Your task to perform on an android device: turn notification dots off Image 0: 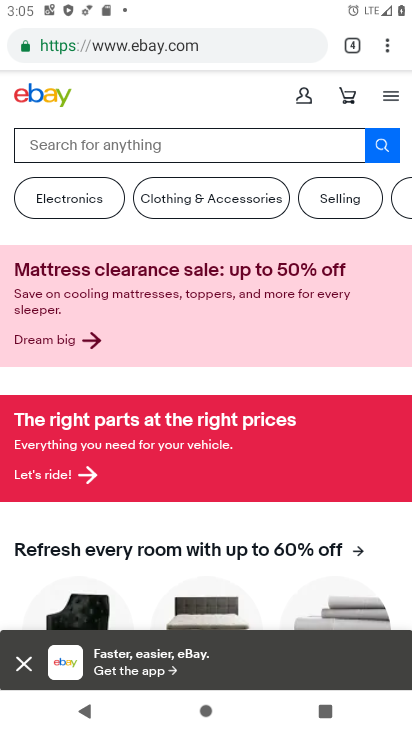
Step 0: press back button
Your task to perform on an android device: turn notification dots off Image 1: 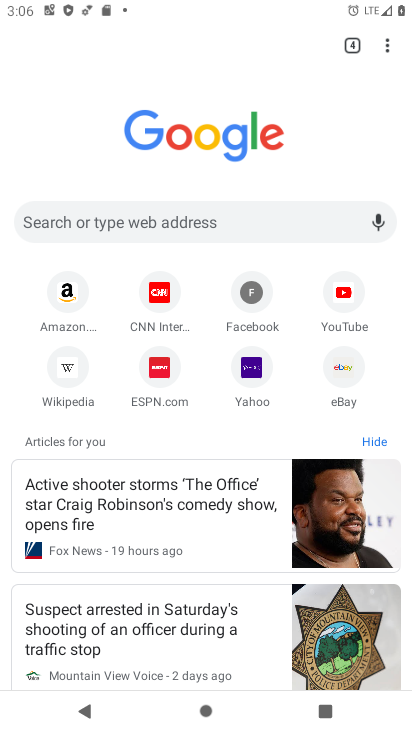
Step 1: press back button
Your task to perform on an android device: turn notification dots off Image 2: 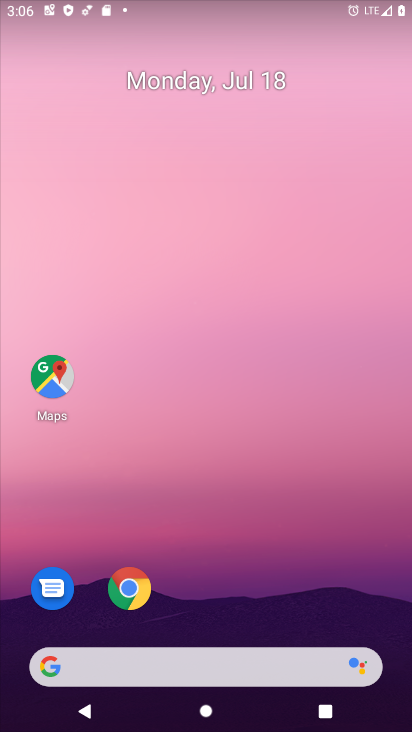
Step 2: drag from (260, 583) to (322, 7)
Your task to perform on an android device: turn notification dots off Image 3: 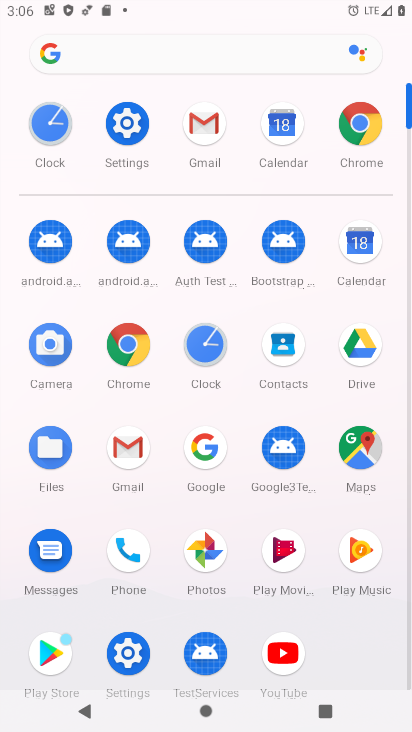
Step 3: click (131, 140)
Your task to perform on an android device: turn notification dots off Image 4: 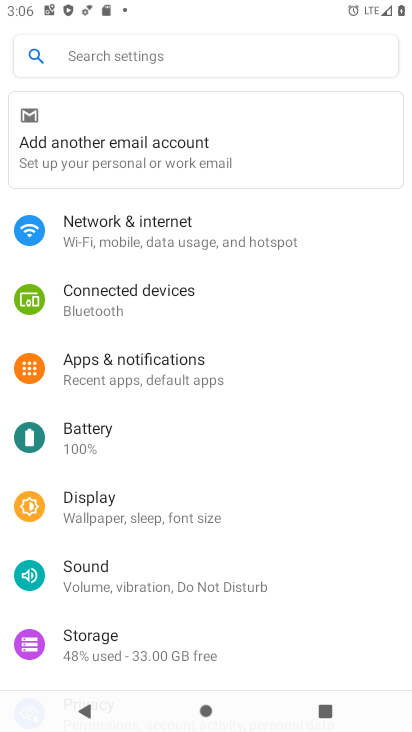
Step 4: click (132, 372)
Your task to perform on an android device: turn notification dots off Image 5: 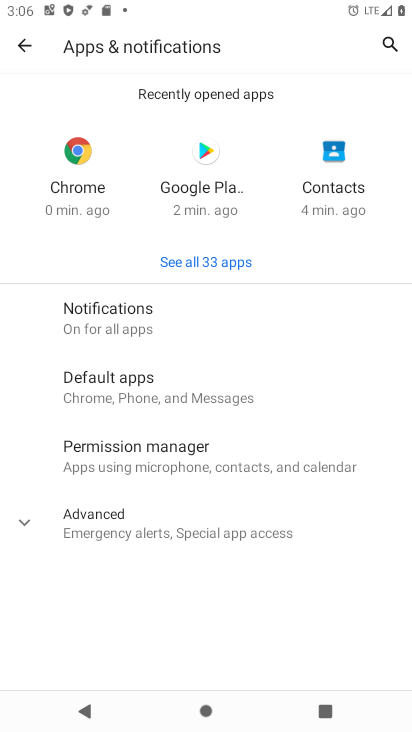
Step 5: click (124, 321)
Your task to perform on an android device: turn notification dots off Image 6: 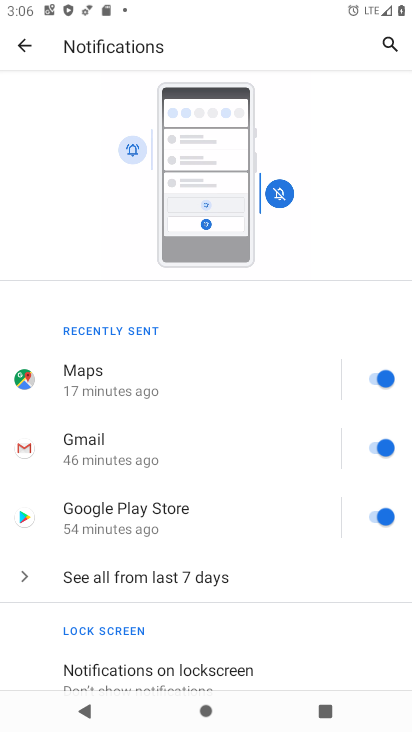
Step 6: drag from (228, 660) to (278, 150)
Your task to perform on an android device: turn notification dots off Image 7: 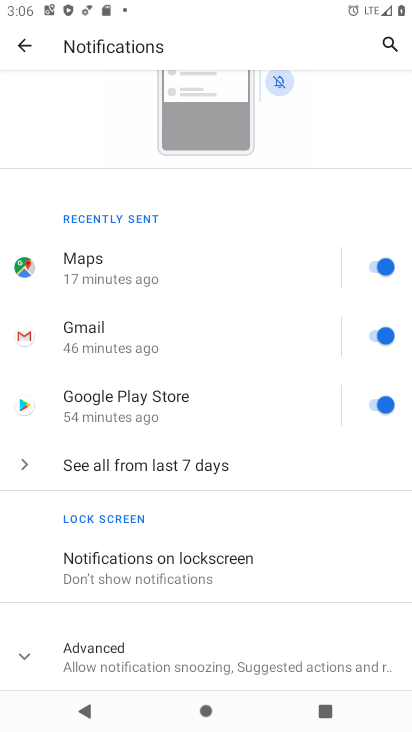
Step 7: click (106, 664)
Your task to perform on an android device: turn notification dots off Image 8: 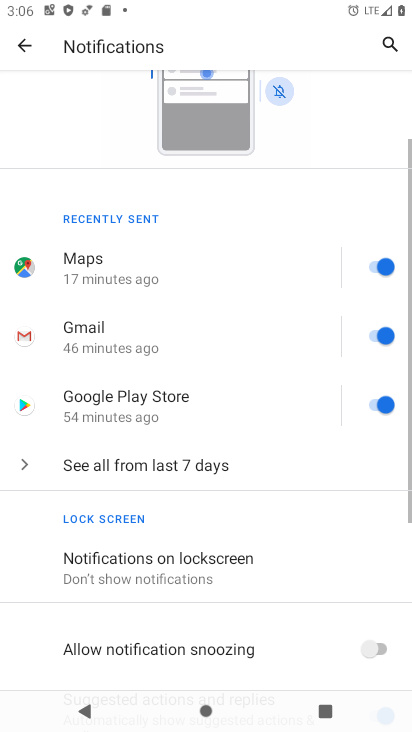
Step 8: drag from (169, 629) to (252, 199)
Your task to perform on an android device: turn notification dots off Image 9: 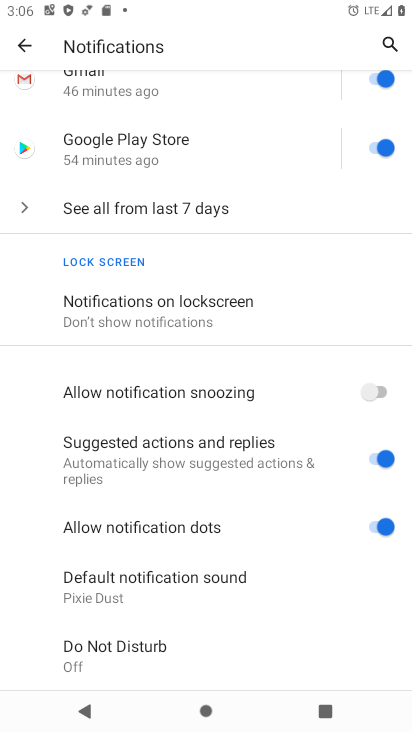
Step 9: click (386, 522)
Your task to perform on an android device: turn notification dots off Image 10: 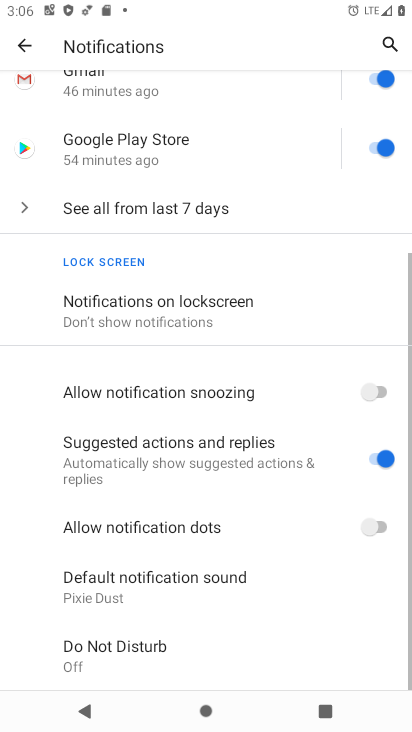
Step 10: task complete